Your task to perform on an android device: turn pop-ups off in chrome Image 0: 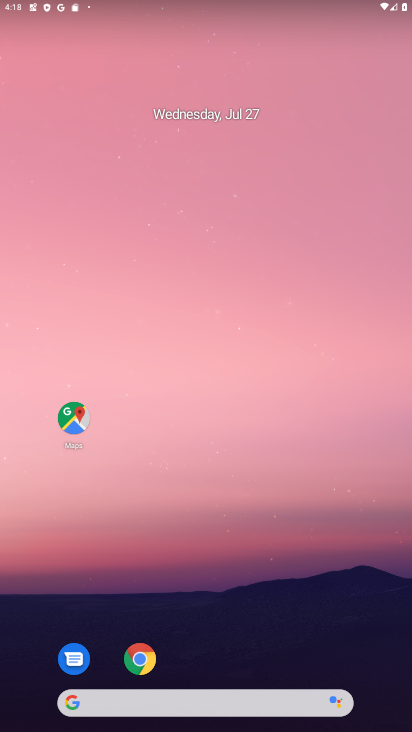
Step 0: click (141, 659)
Your task to perform on an android device: turn pop-ups off in chrome Image 1: 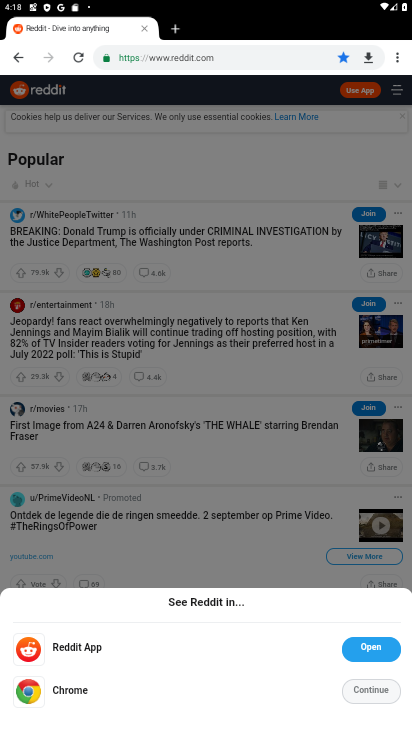
Step 1: click (398, 66)
Your task to perform on an android device: turn pop-ups off in chrome Image 2: 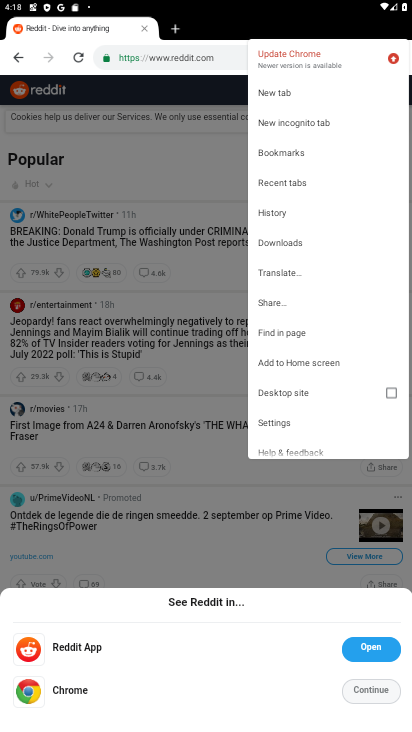
Step 2: click (273, 427)
Your task to perform on an android device: turn pop-ups off in chrome Image 3: 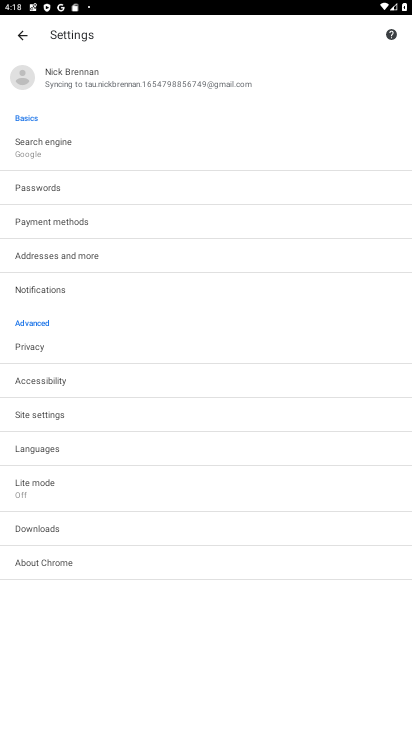
Step 3: click (103, 419)
Your task to perform on an android device: turn pop-ups off in chrome Image 4: 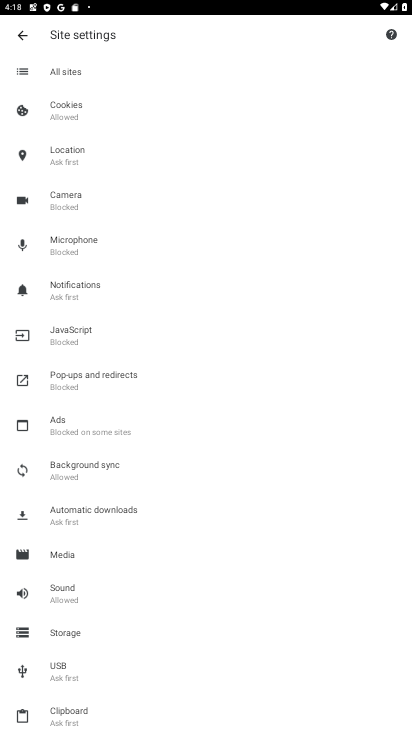
Step 4: click (138, 367)
Your task to perform on an android device: turn pop-ups off in chrome Image 5: 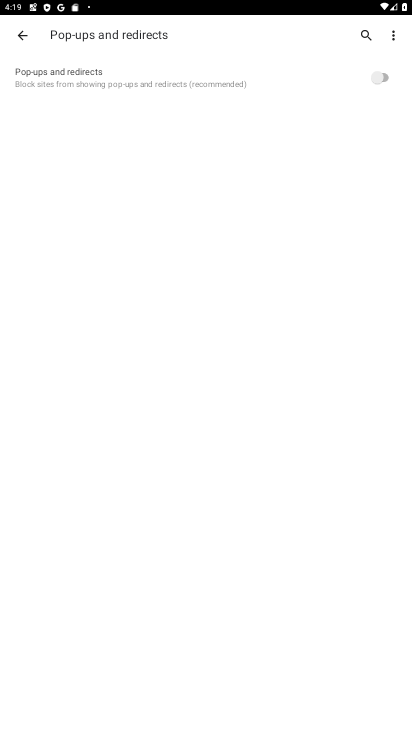
Step 5: task complete